Your task to perform on an android device: toggle javascript in the chrome app Image 0: 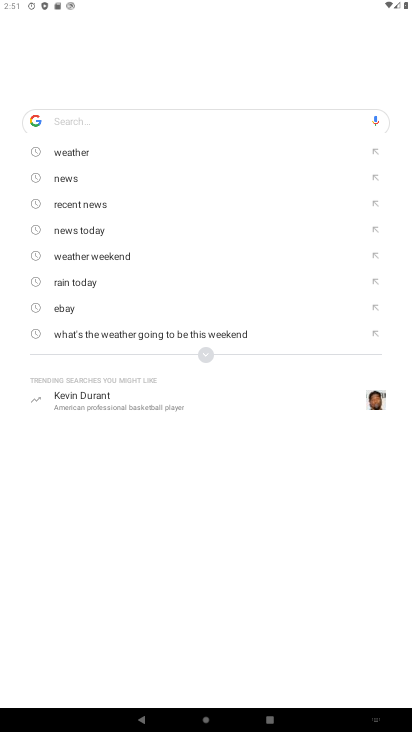
Step 0: press home button
Your task to perform on an android device: toggle javascript in the chrome app Image 1: 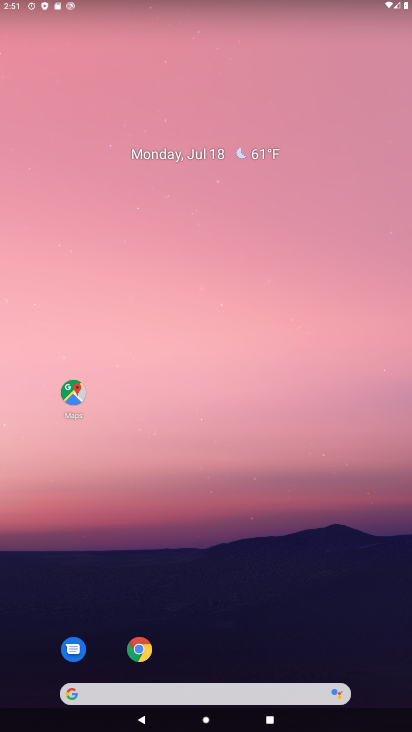
Step 1: click (124, 642)
Your task to perform on an android device: toggle javascript in the chrome app Image 2: 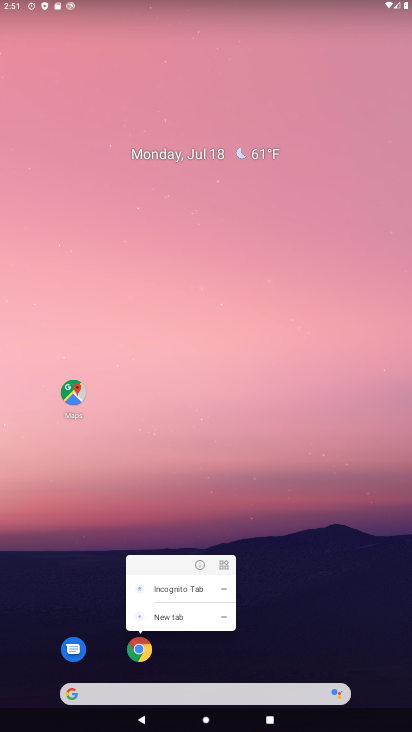
Step 2: click (137, 648)
Your task to perform on an android device: toggle javascript in the chrome app Image 3: 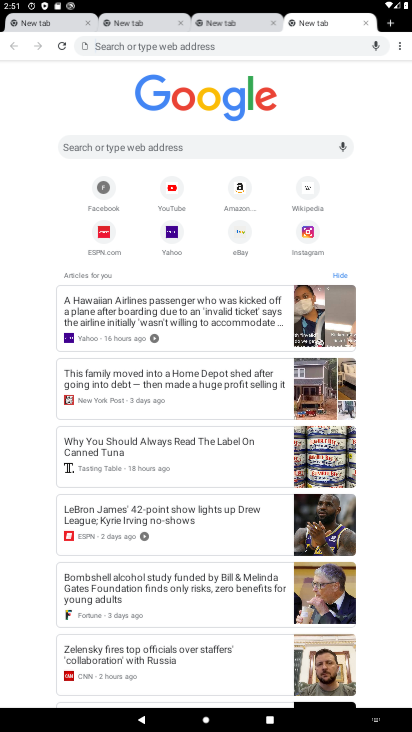
Step 3: click (397, 43)
Your task to perform on an android device: toggle javascript in the chrome app Image 4: 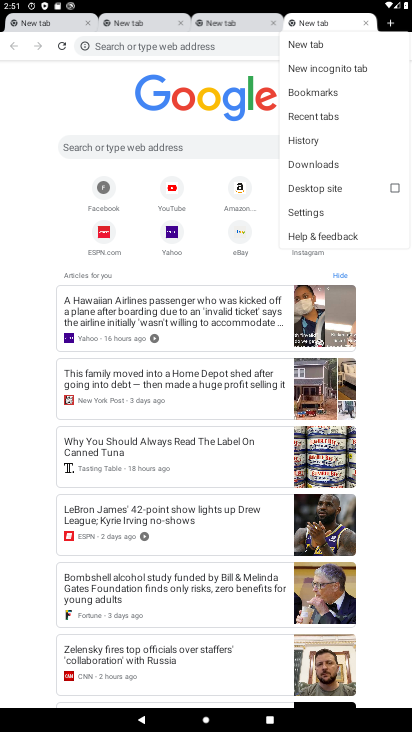
Step 4: click (322, 213)
Your task to perform on an android device: toggle javascript in the chrome app Image 5: 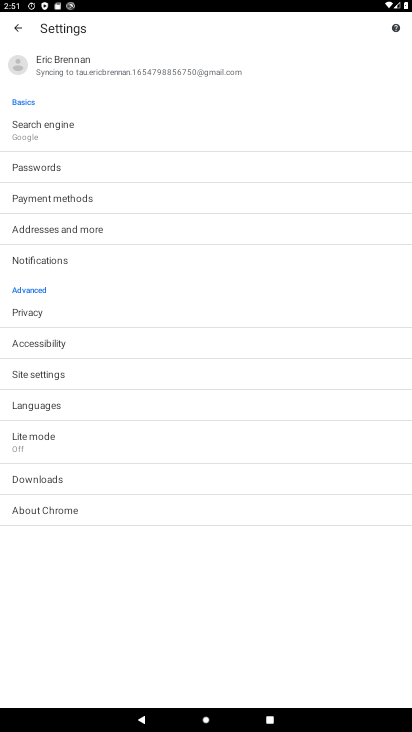
Step 5: click (63, 373)
Your task to perform on an android device: toggle javascript in the chrome app Image 6: 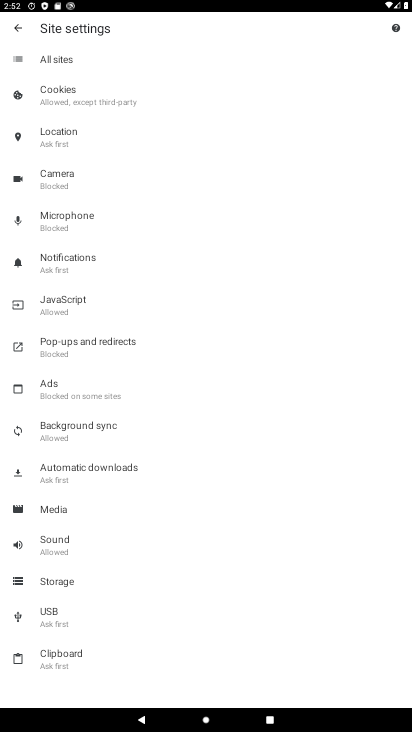
Step 6: click (63, 298)
Your task to perform on an android device: toggle javascript in the chrome app Image 7: 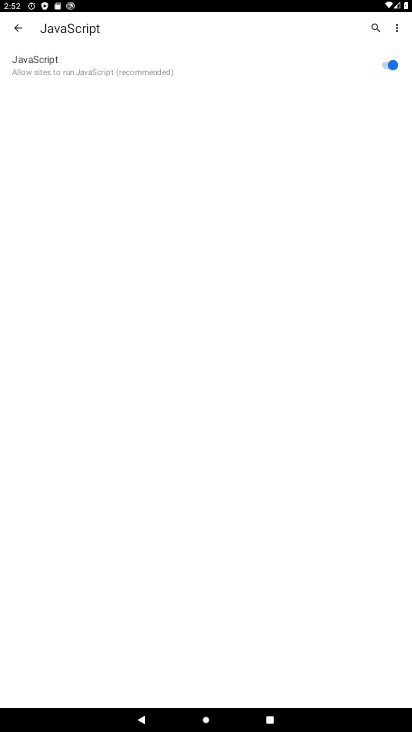
Step 7: task complete